Your task to perform on an android device: Look up the best rated headphones on Amazon. Image 0: 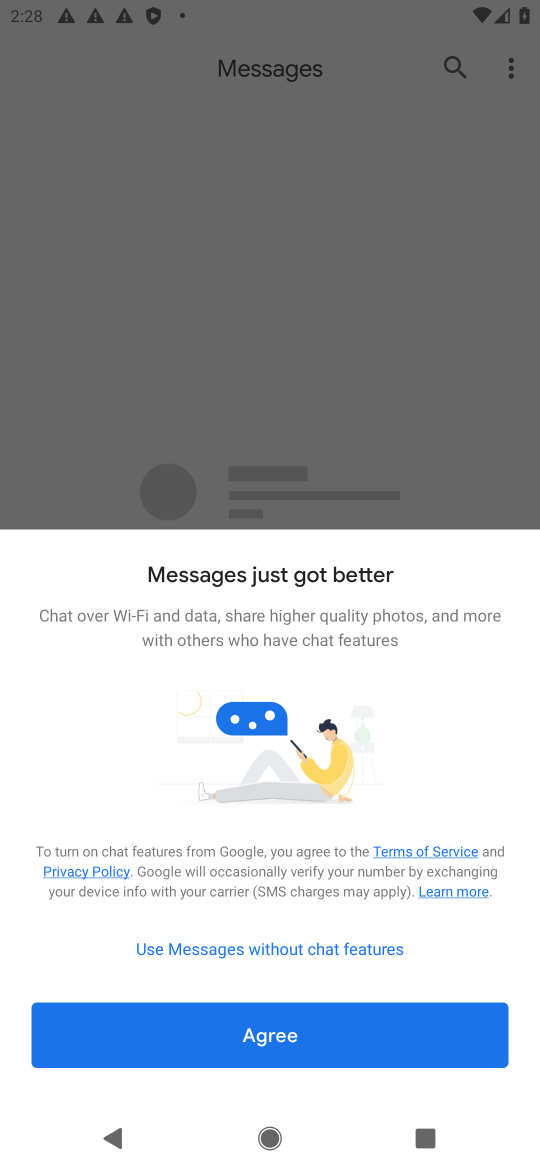
Step 0: press home button
Your task to perform on an android device: Look up the best rated headphones on Amazon. Image 1: 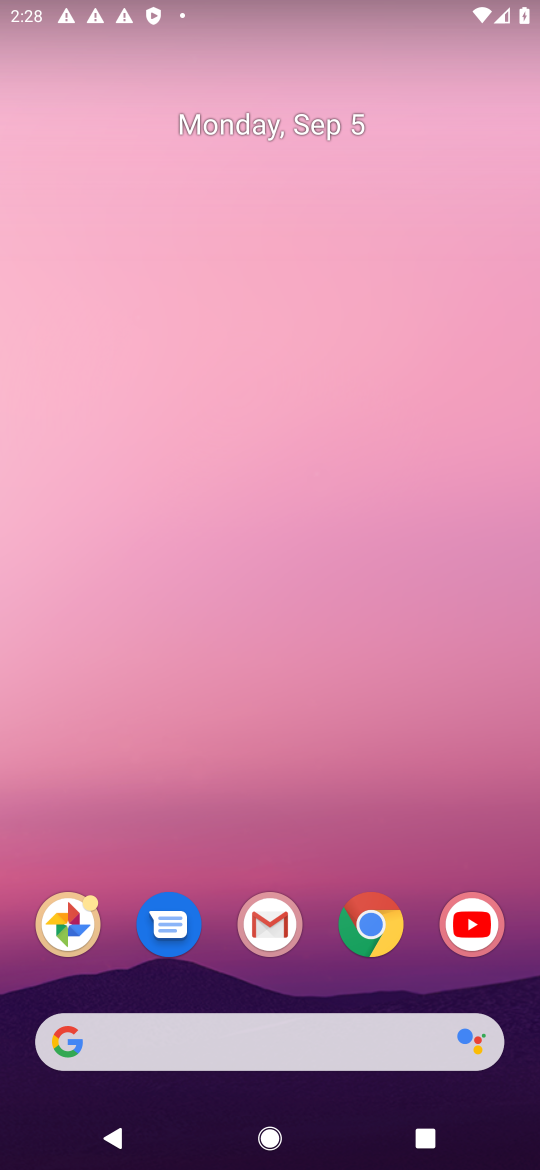
Step 1: click (363, 669)
Your task to perform on an android device: Look up the best rated headphones on Amazon. Image 2: 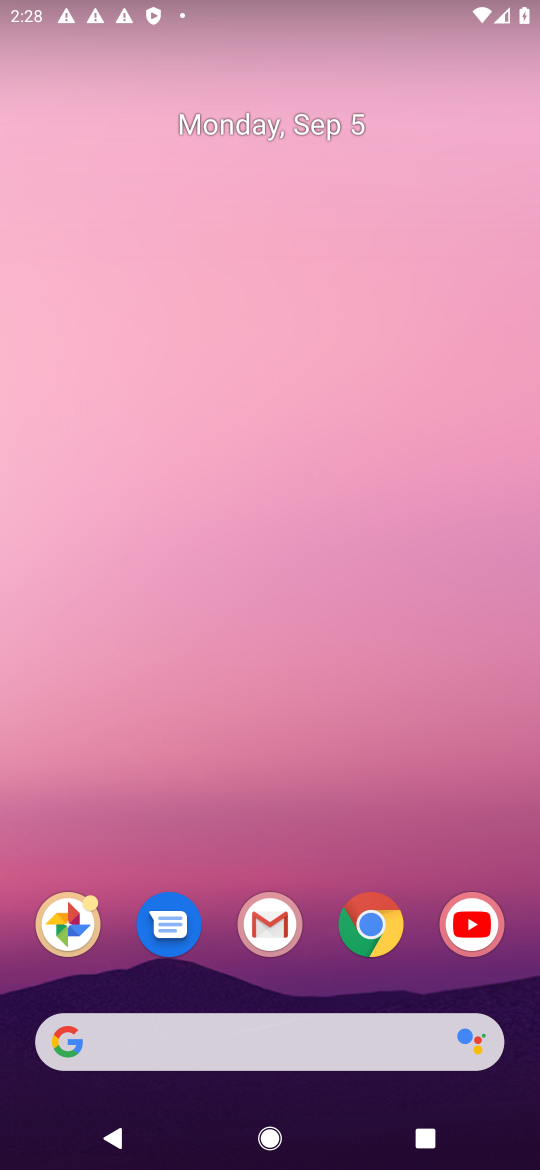
Step 2: click (368, 924)
Your task to perform on an android device: Look up the best rated headphones on Amazon. Image 3: 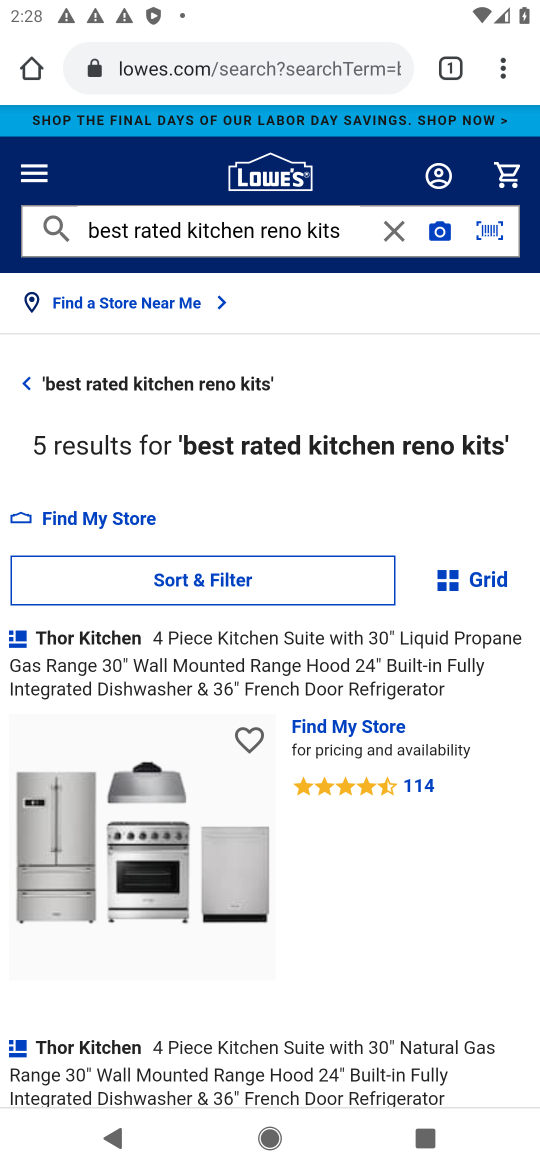
Step 3: click (342, 58)
Your task to perform on an android device: Look up the best rated headphones on Amazon. Image 4: 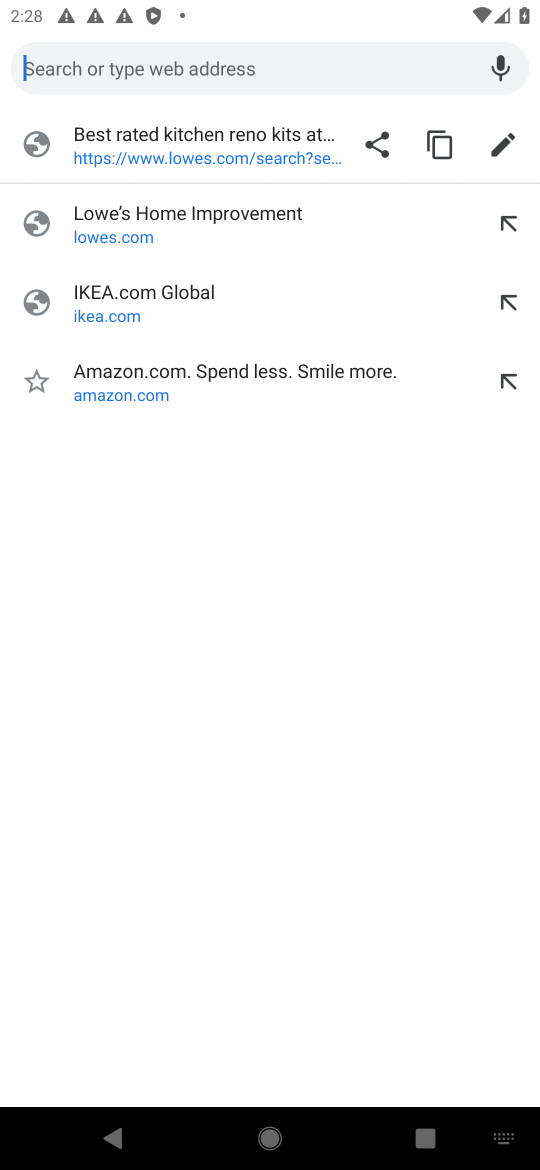
Step 4: click (340, 372)
Your task to perform on an android device: Look up the best rated headphones on Amazon. Image 5: 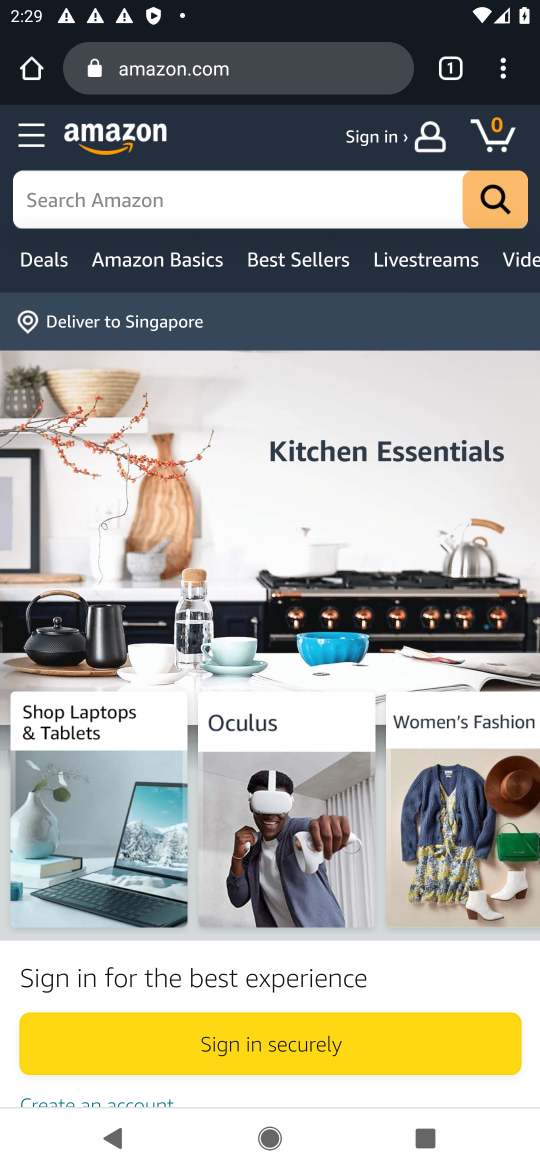
Step 5: click (213, 200)
Your task to perform on an android device: Look up the best rated headphones on Amazon. Image 6: 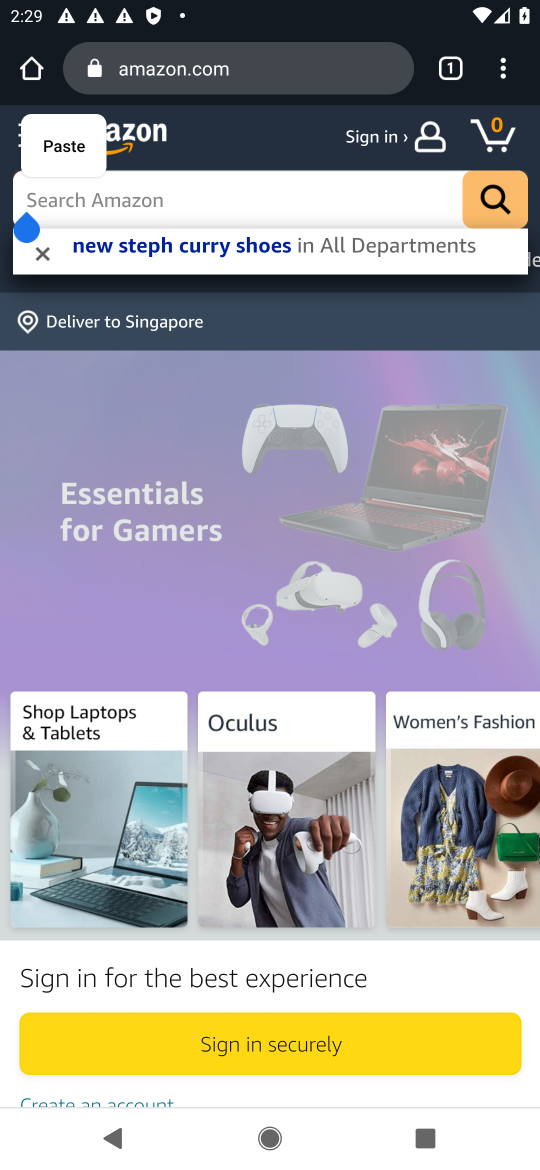
Step 6: click (213, 200)
Your task to perform on an android device: Look up the best rated headphones on Amazon. Image 7: 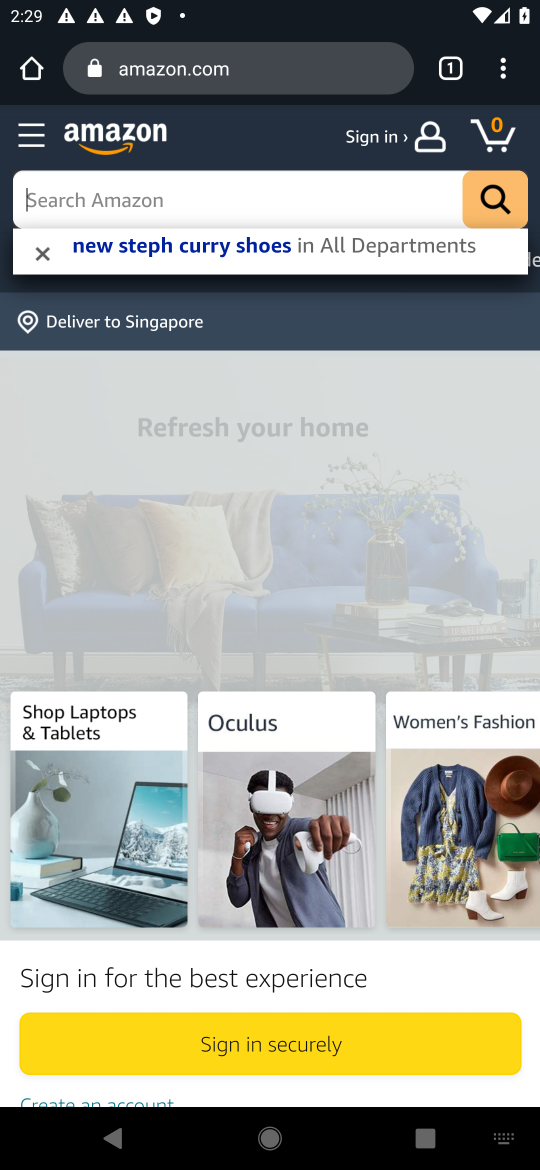
Step 7: click (213, 200)
Your task to perform on an android device: Look up the best rated headphones on Amazon. Image 8: 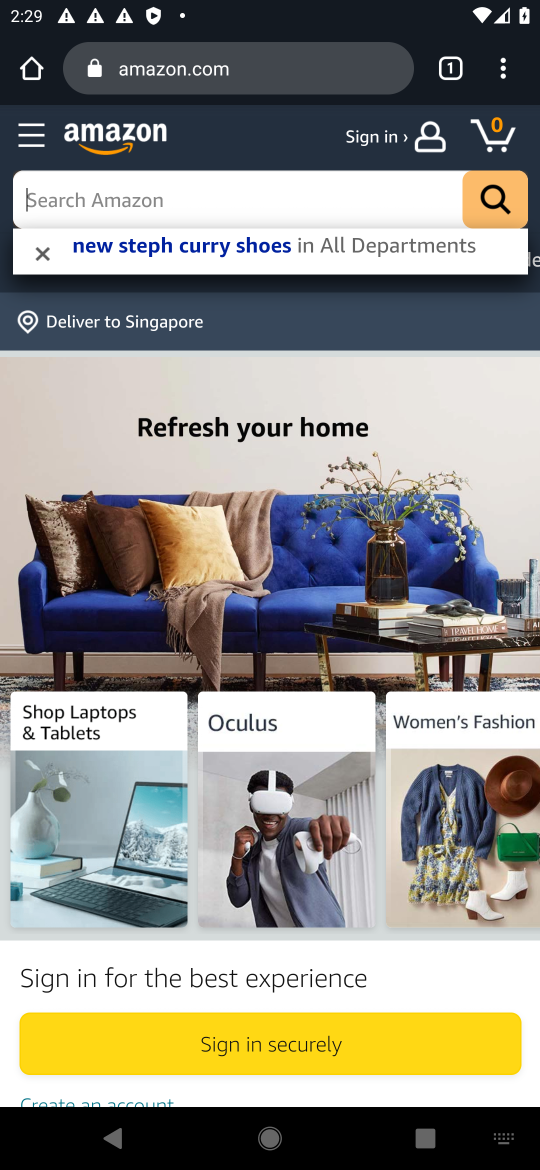
Step 8: type "best rated headphone"
Your task to perform on an android device: Look up the best rated headphones on Amazon. Image 9: 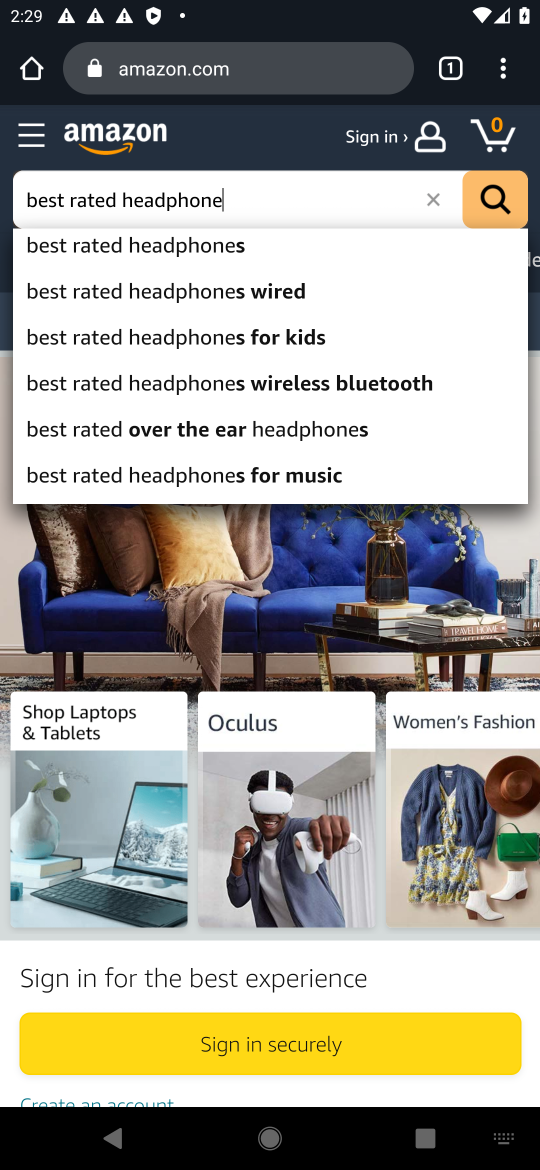
Step 9: click (289, 246)
Your task to perform on an android device: Look up the best rated headphones on Amazon. Image 10: 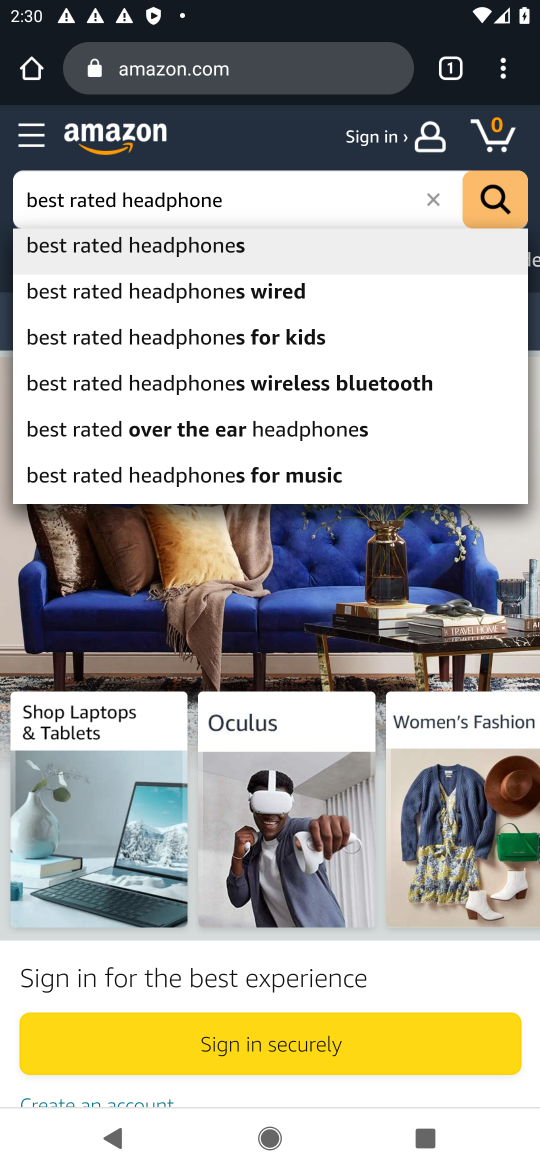
Step 10: click (180, 247)
Your task to perform on an android device: Look up the best rated headphones on Amazon. Image 11: 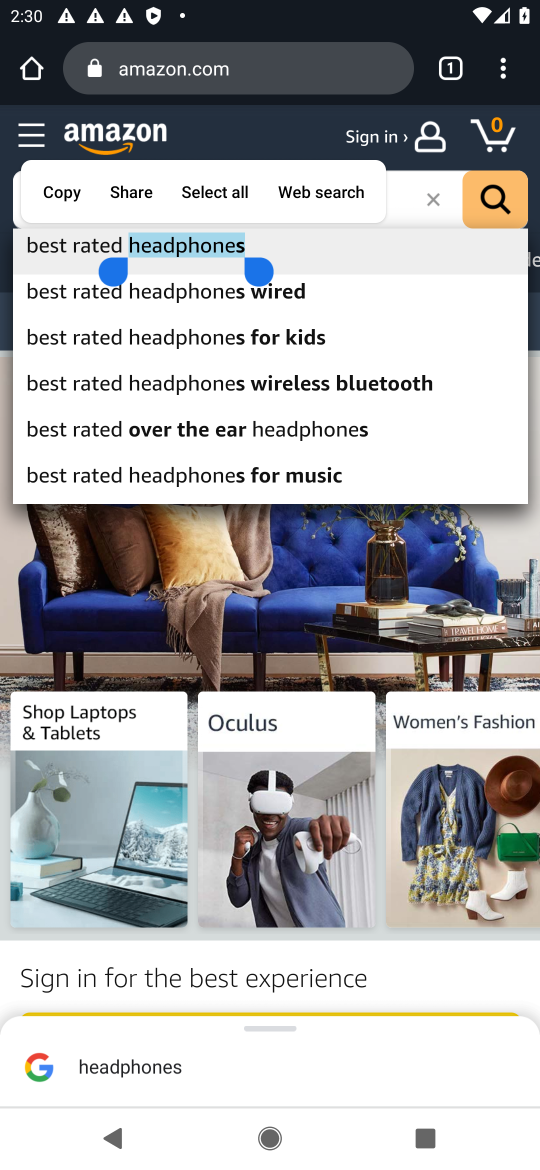
Step 11: click (66, 249)
Your task to perform on an android device: Look up the best rated headphones on Amazon. Image 12: 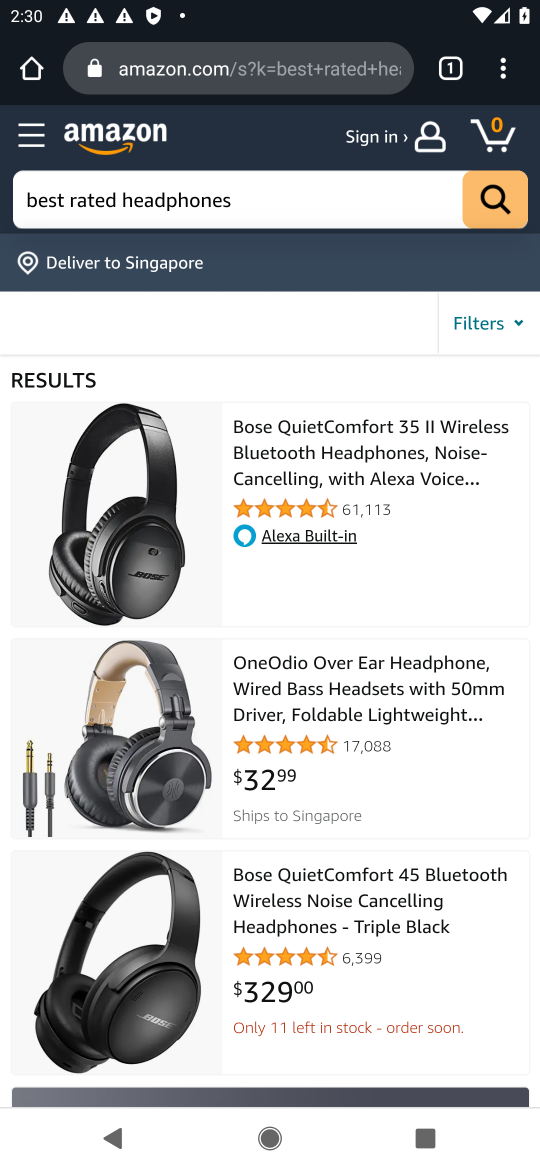
Step 12: task complete